Your task to perform on an android device: Search for sushi restaurants on Maps Image 0: 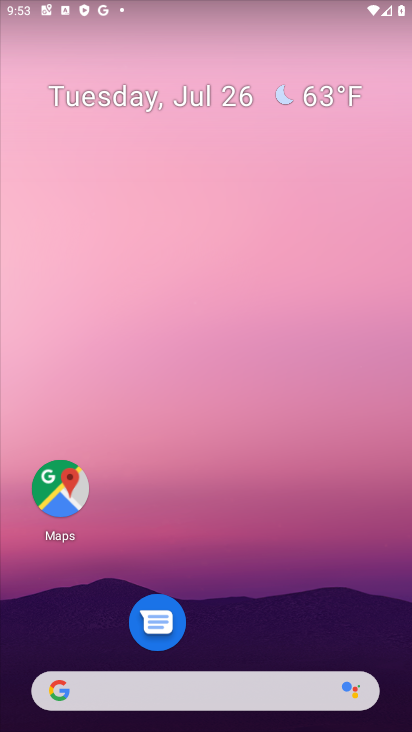
Step 0: drag from (237, 541) to (221, 124)
Your task to perform on an android device: Search for sushi restaurants on Maps Image 1: 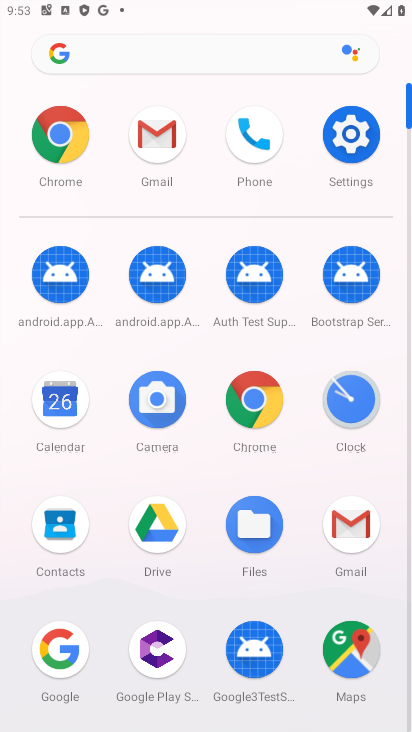
Step 1: click (352, 647)
Your task to perform on an android device: Search for sushi restaurants on Maps Image 2: 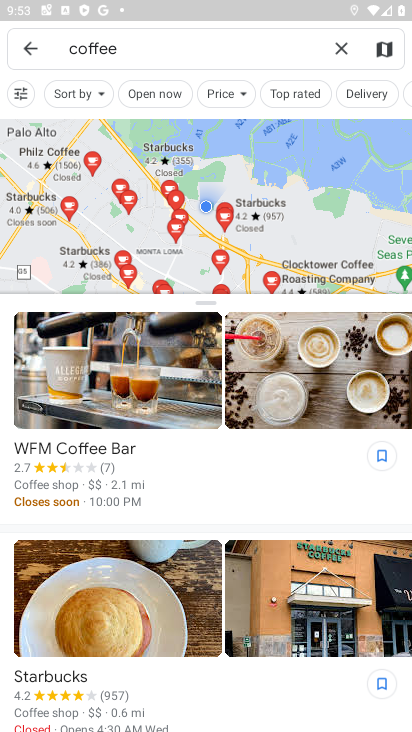
Step 2: click (346, 50)
Your task to perform on an android device: Search for sushi restaurants on Maps Image 3: 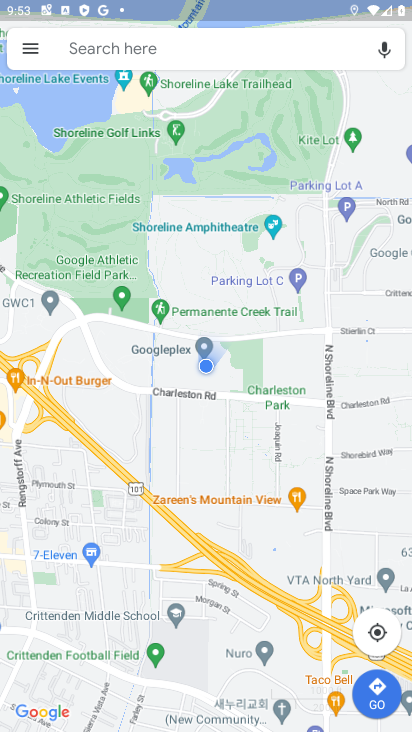
Step 3: click (224, 37)
Your task to perform on an android device: Search for sushi restaurants on Maps Image 4: 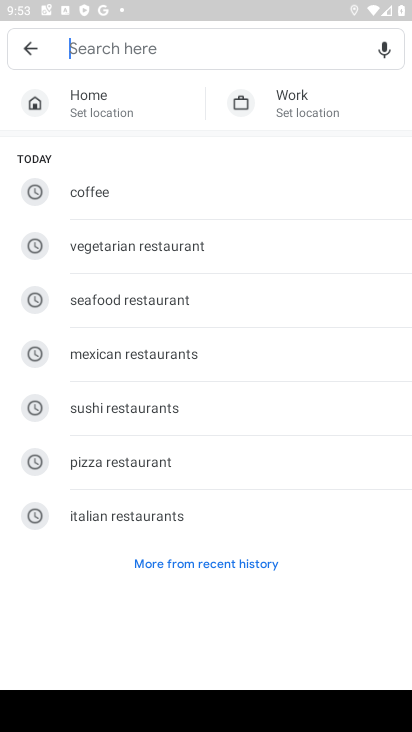
Step 4: click (159, 399)
Your task to perform on an android device: Search for sushi restaurants on Maps Image 5: 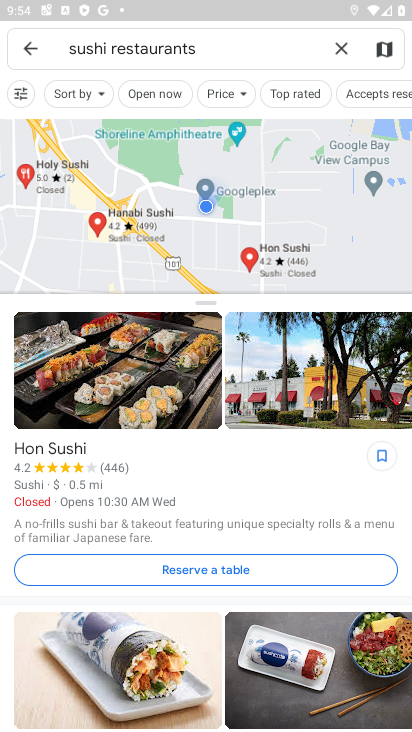
Step 5: task complete